Your task to perform on an android device: Open Chrome and go to the settings page Image 0: 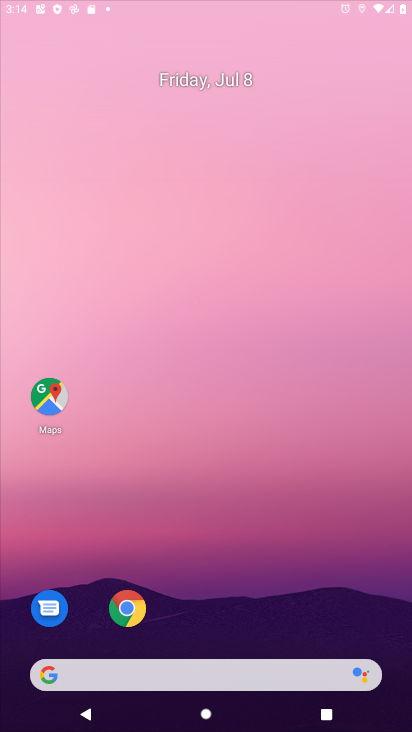
Step 0: drag from (290, 488) to (289, 6)
Your task to perform on an android device: Open Chrome and go to the settings page Image 1: 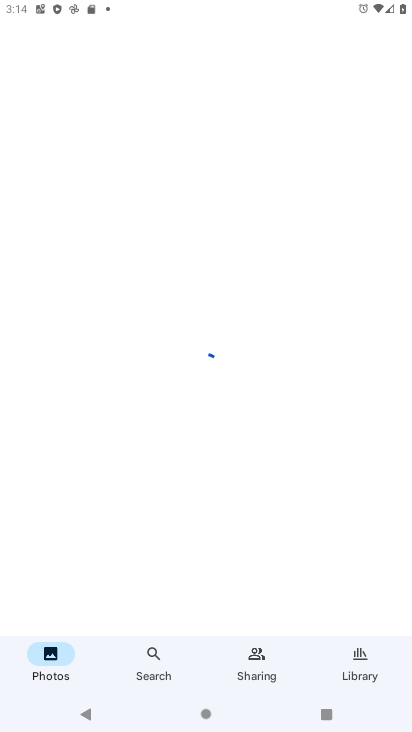
Step 1: press home button
Your task to perform on an android device: Open Chrome and go to the settings page Image 2: 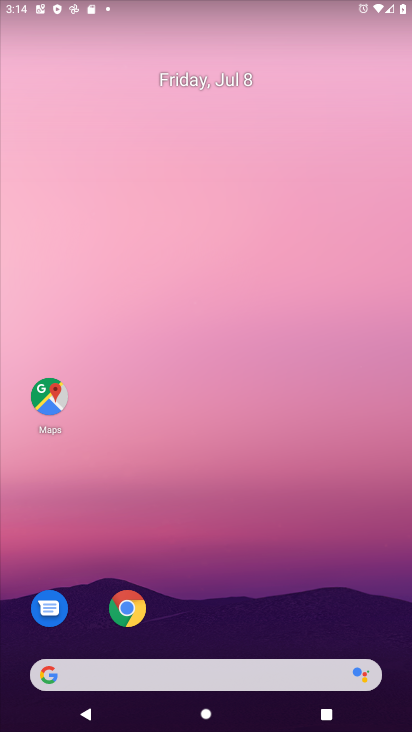
Step 2: drag from (303, 680) to (291, 21)
Your task to perform on an android device: Open Chrome and go to the settings page Image 3: 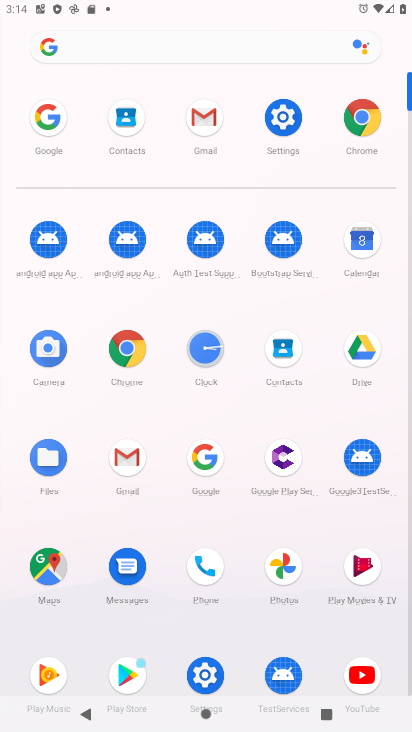
Step 3: click (123, 355)
Your task to perform on an android device: Open Chrome and go to the settings page Image 4: 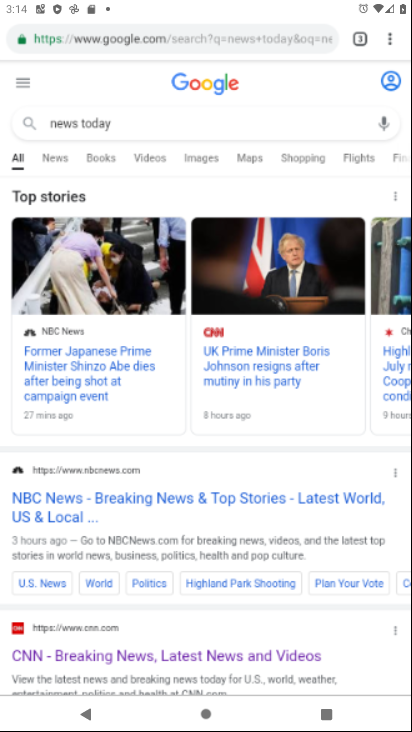
Step 4: click (385, 37)
Your task to perform on an android device: Open Chrome and go to the settings page Image 5: 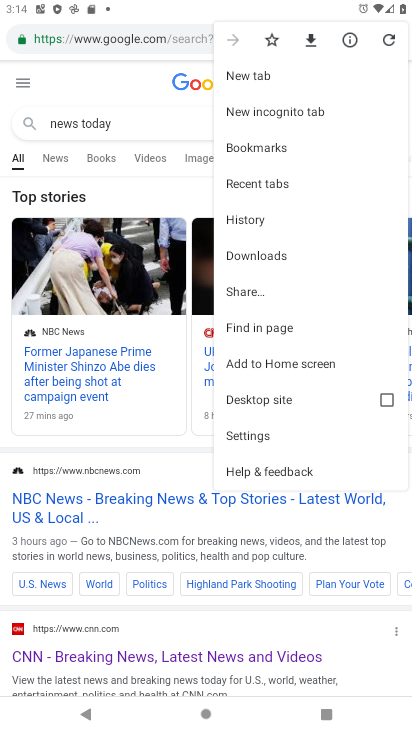
Step 5: click (283, 430)
Your task to perform on an android device: Open Chrome and go to the settings page Image 6: 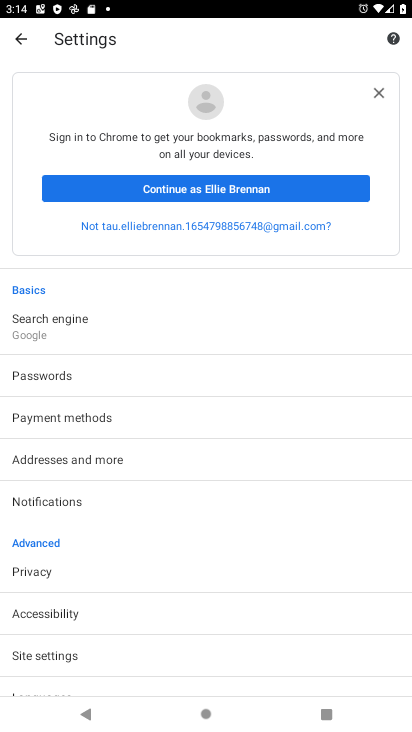
Step 6: task complete